Your task to perform on an android device: Open calendar and show me the second week of next month Image 0: 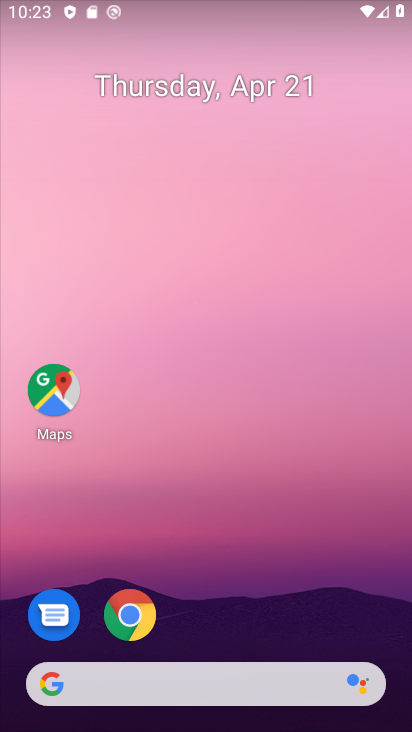
Step 0: drag from (274, 560) to (277, 54)
Your task to perform on an android device: Open calendar and show me the second week of next month Image 1: 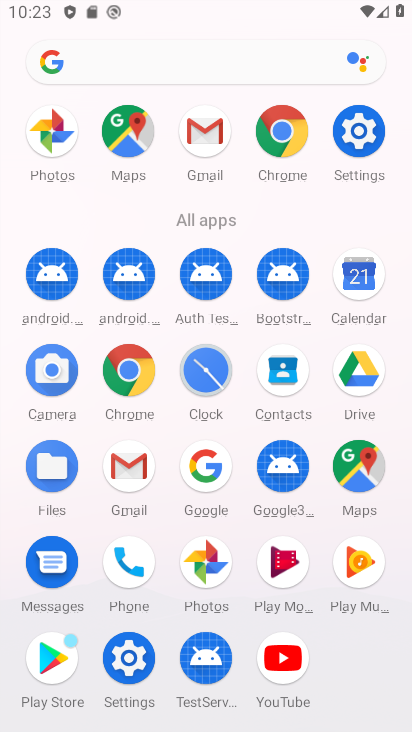
Step 1: click (347, 283)
Your task to perform on an android device: Open calendar and show me the second week of next month Image 2: 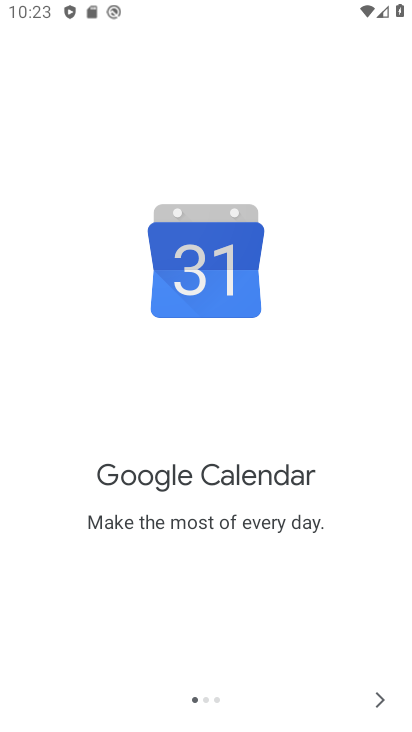
Step 2: click (386, 696)
Your task to perform on an android device: Open calendar and show me the second week of next month Image 3: 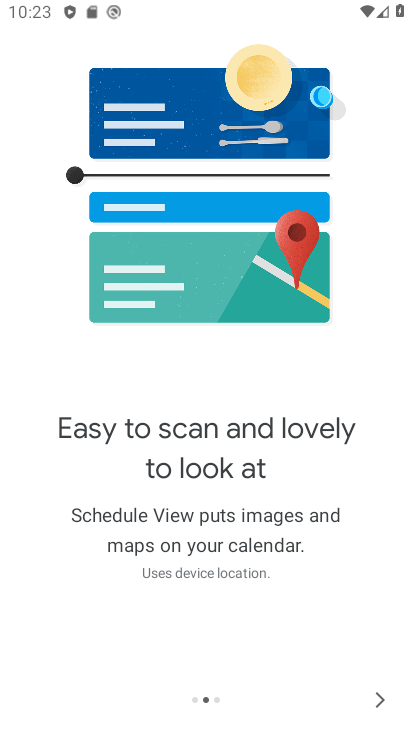
Step 3: click (386, 696)
Your task to perform on an android device: Open calendar and show me the second week of next month Image 4: 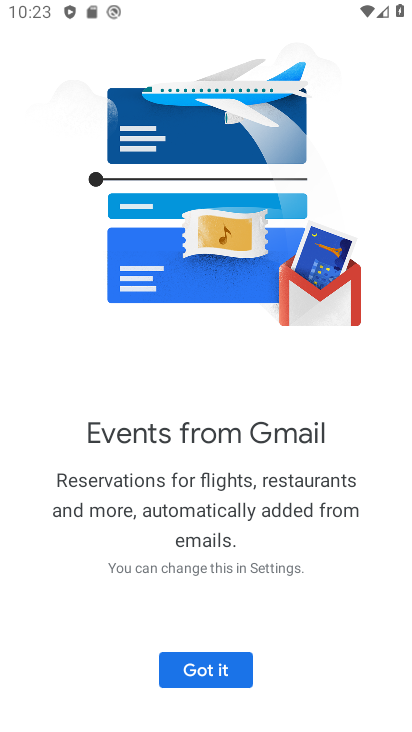
Step 4: click (227, 670)
Your task to perform on an android device: Open calendar and show me the second week of next month Image 5: 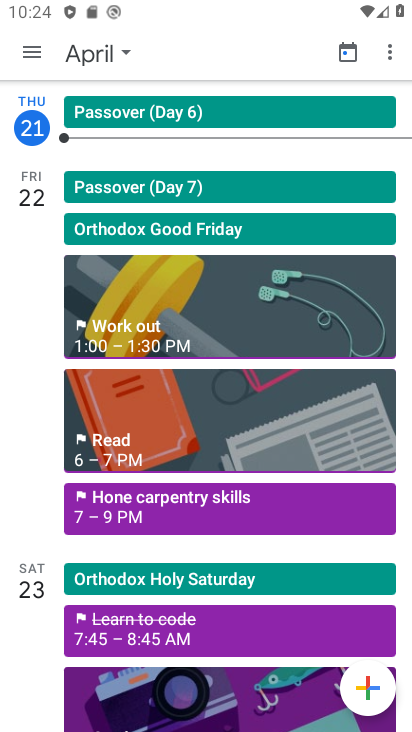
Step 5: click (83, 61)
Your task to perform on an android device: Open calendar and show me the second week of next month Image 6: 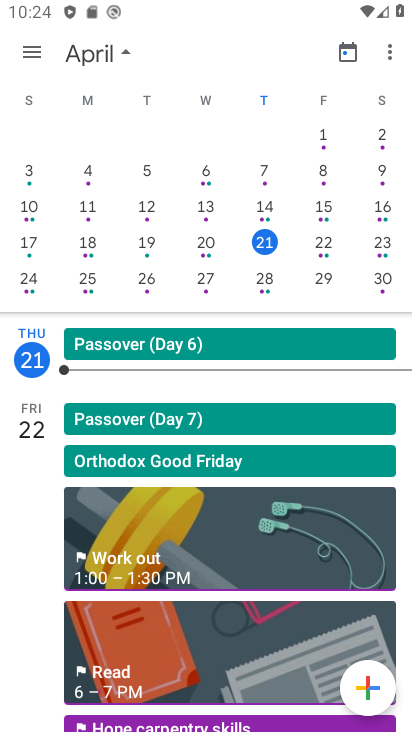
Step 6: drag from (304, 215) to (3, 244)
Your task to perform on an android device: Open calendar and show me the second week of next month Image 7: 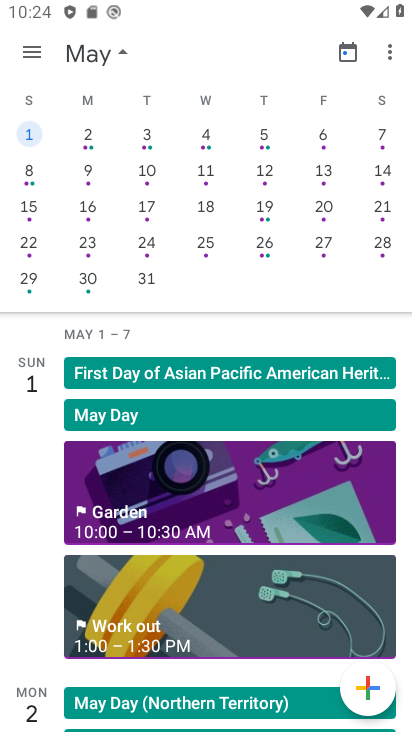
Step 7: click (43, 174)
Your task to perform on an android device: Open calendar and show me the second week of next month Image 8: 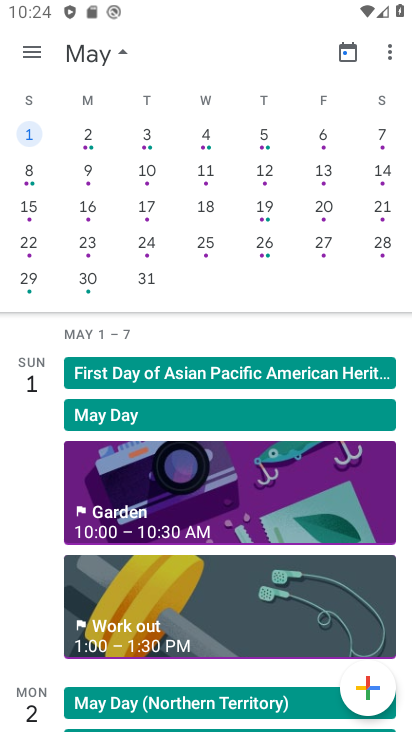
Step 8: click (35, 180)
Your task to perform on an android device: Open calendar and show me the second week of next month Image 9: 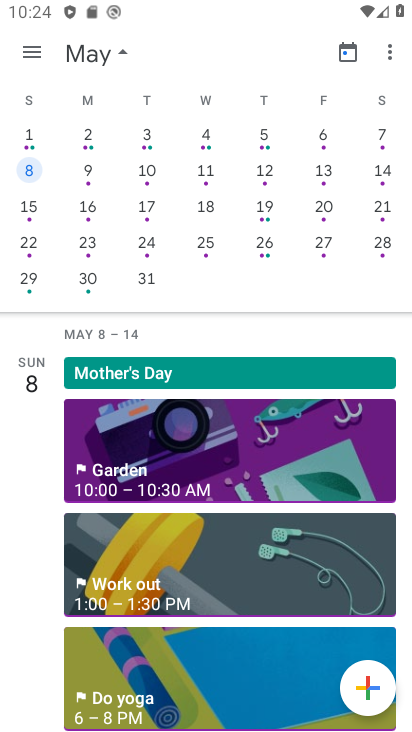
Step 9: task complete